Your task to perform on an android device: check battery use Image 0: 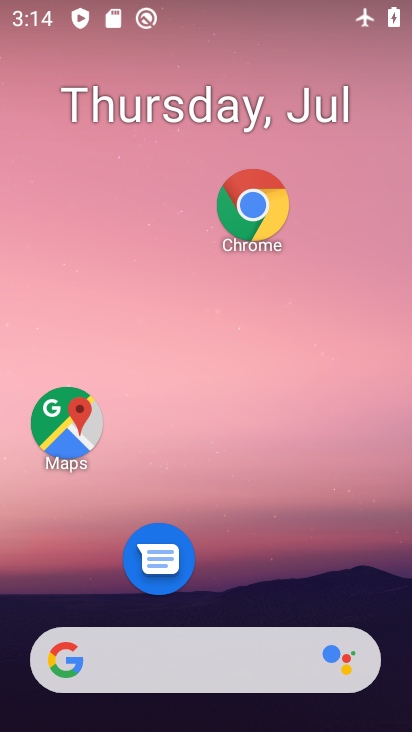
Step 0: drag from (284, 593) to (310, 146)
Your task to perform on an android device: check battery use Image 1: 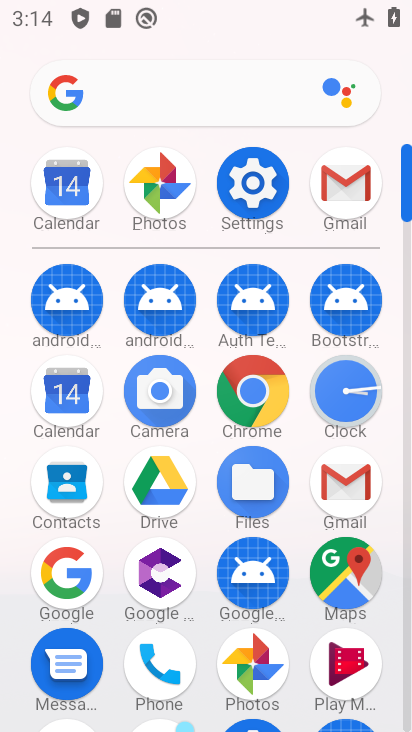
Step 1: click (240, 201)
Your task to perform on an android device: check battery use Image 2: 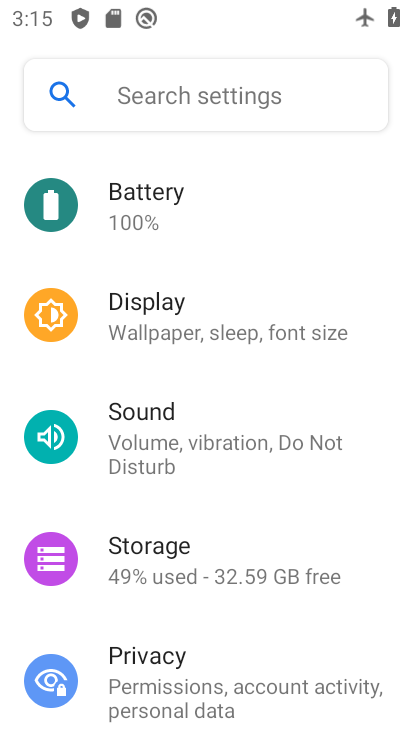
Step 2: drag from (213, 590) to (227, 730)
Your task to perform on an android device: check battery use Image 3: 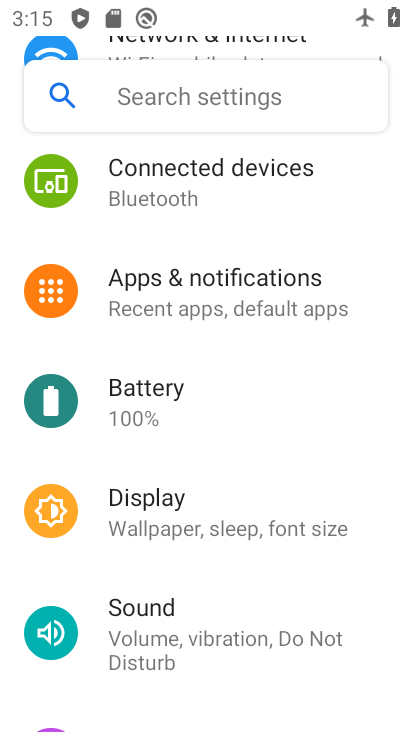
Step 3: click (189, 414)
Your task to perform on an android device: check battery use Image 4: 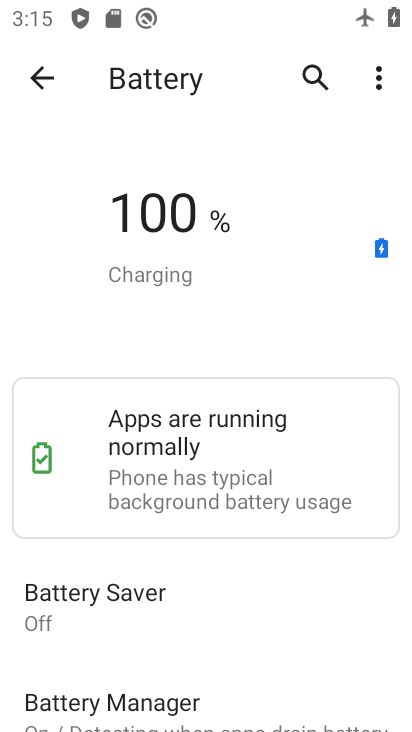
Step 4: task complete